Your task to perform on an android device: find snoozed emails in the gmail app Image 0: 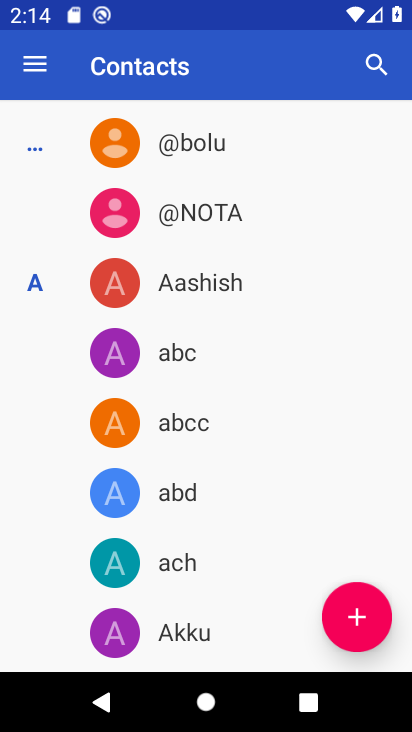
Step 0: press home button
Your task to perform on an android device: find snoozed emails in the gmail app Image 1: 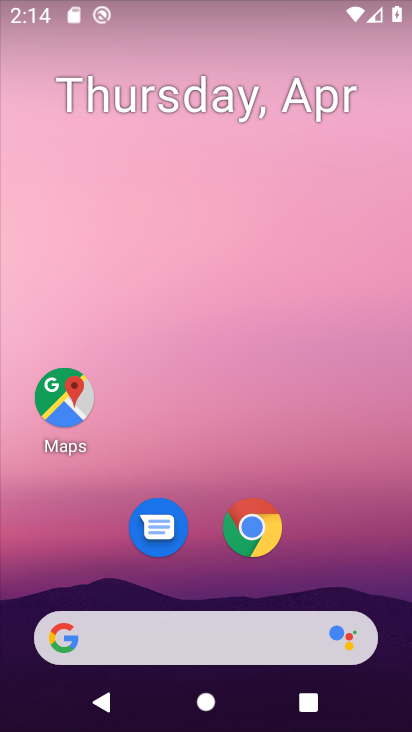
Step 1: drag from (310, 566) to (316, 128)
Your task to perform on an android device: find snoozed emails in the gmail app Image 2: 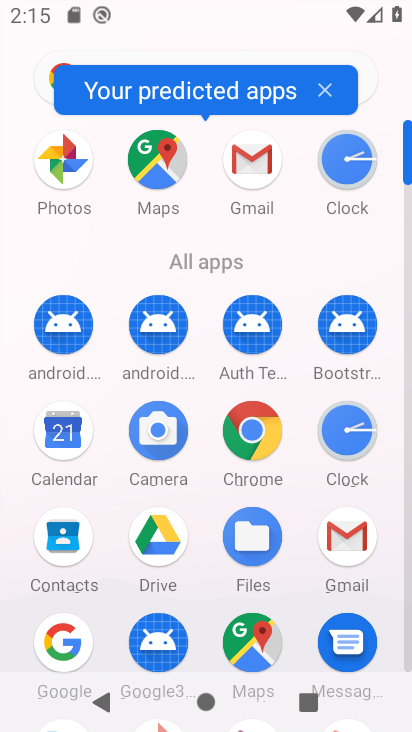
Step 2: click (259, 161)
Your task to perform on an android device: find snoozed emails in the gmail app Image 3: 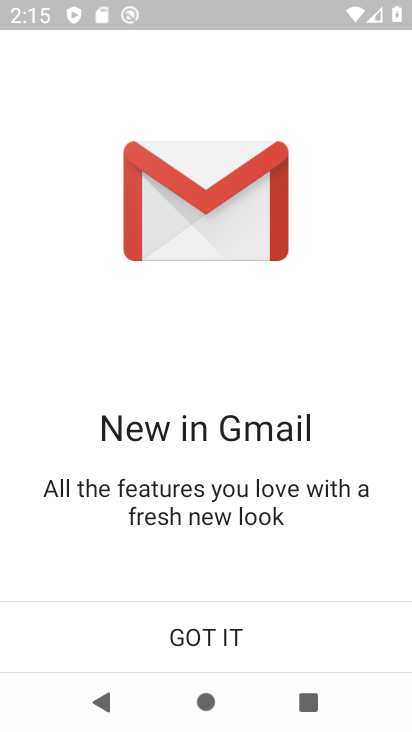
Step 3: click (208, 625)
Your task to perform on an android device: find snoozed emails in the gmail app Image 4: 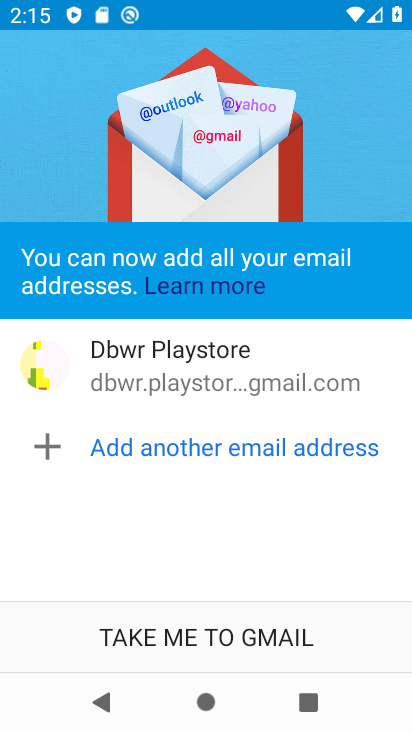
Step 4: click (185, 633)
Your task to perform on an android device: find snoozed emails in the gmail app Image 5: 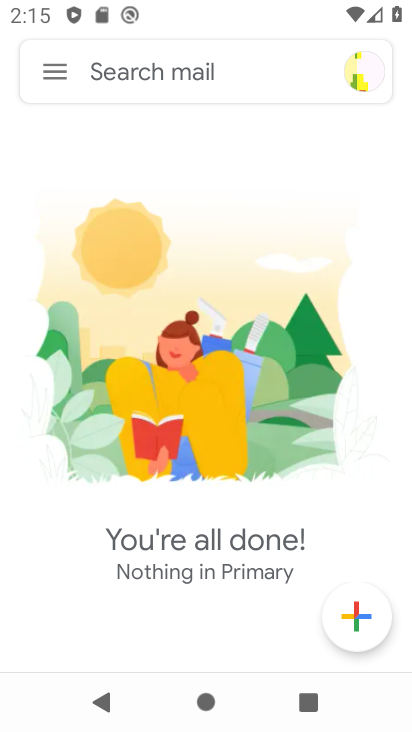
Step 5: click (62, 64)
Your task to perform on an android device: find snoozed emails in the gmail app Image 6: 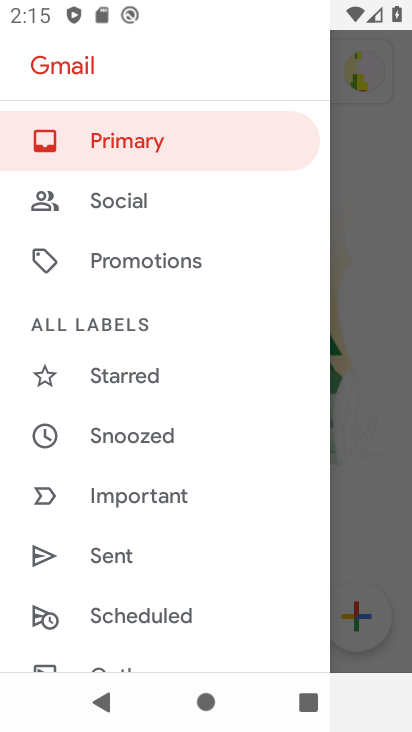
Step 6: click (145, 438)
Your task to perform on an android device: find snoozed emails in the gmail app Image 7: 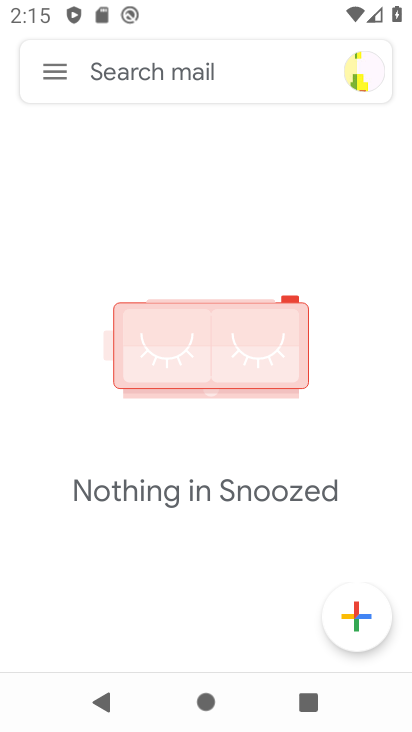
Step 7: task complete